Your task to perform on an android device: Find a good burger place on Maps Image 0: 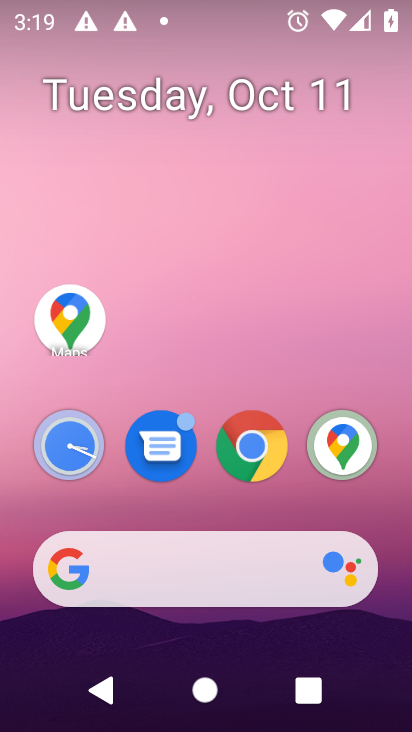
Step 0: click (343, 448)
Your task to perform on an android device: Find a good burger place on Maps Image 1: 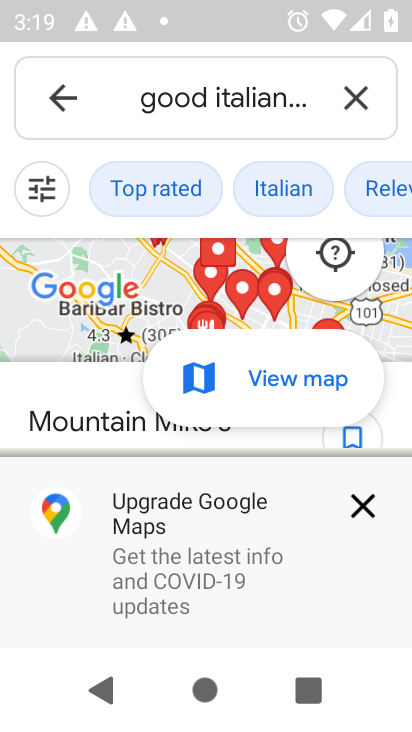
Step 1: click (356, 98)
Your task to perform on an android device: Find a good burger place on Maps Image 2: 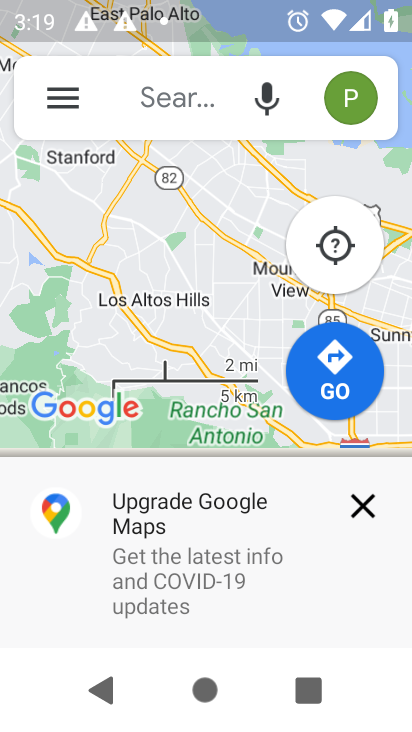
Step 2: click (158, 100)
Your task to perform on an android device: Find a good burger place on Maps Image 3: 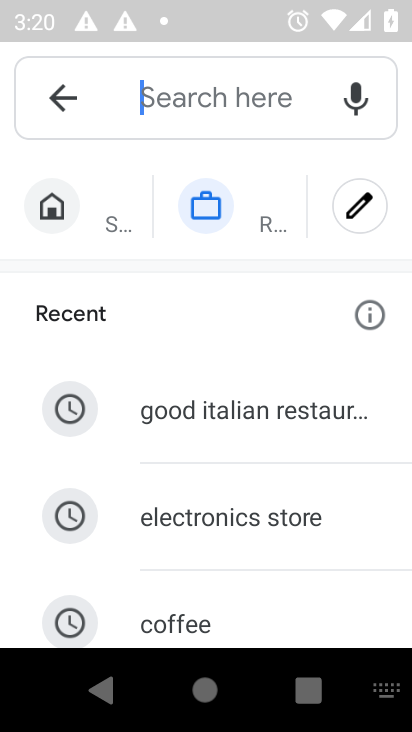
Step 3: type " good burger place "
Your task to perform on an android device: Find a good burger place on Maps Image 4: 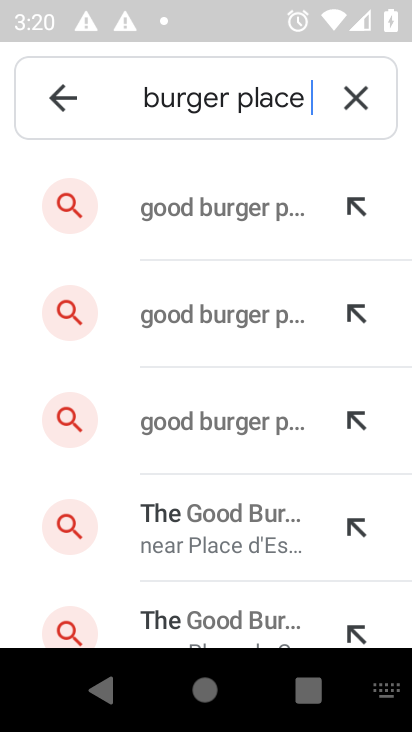
Step 4: click (228, 215)
Your task to perform on an android device: Find a good burger place on Maps Image 5: 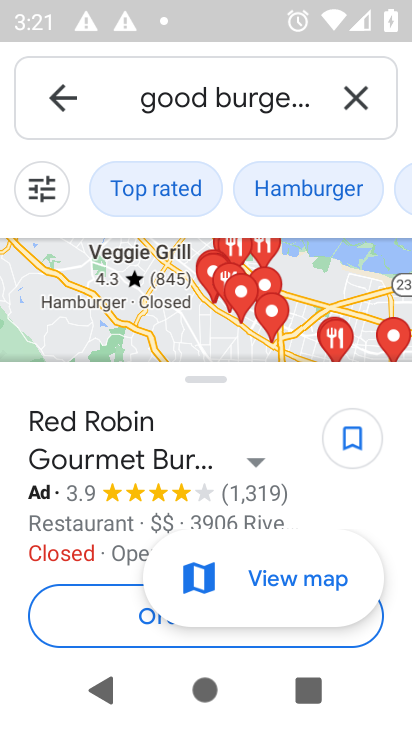
Step 5: task complete